Your task to perform on an android device: Open the calendar and show me this week's events Image 0: 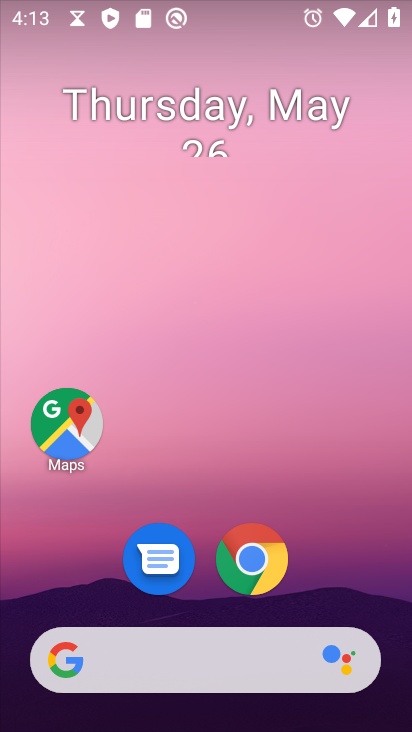
Step 0: drag from (359, 541) to (260, 35)
Your task to perform on an android device: Open the calendar and show me this week's events Image 1: 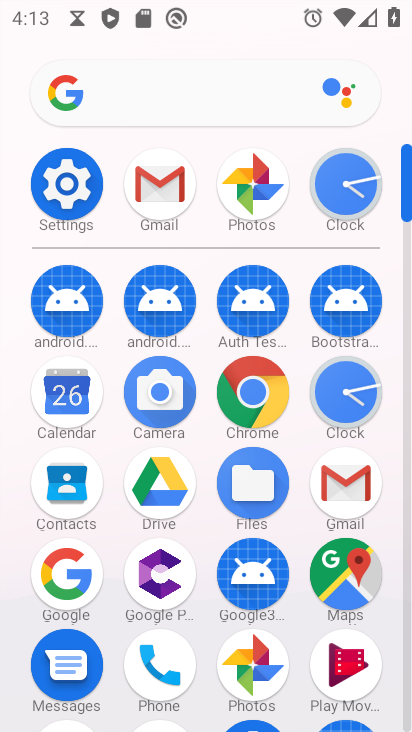
Step 1: click (69, 403)
Your task to perform on an android device: Open the calendar and show me this week's events Image 2: 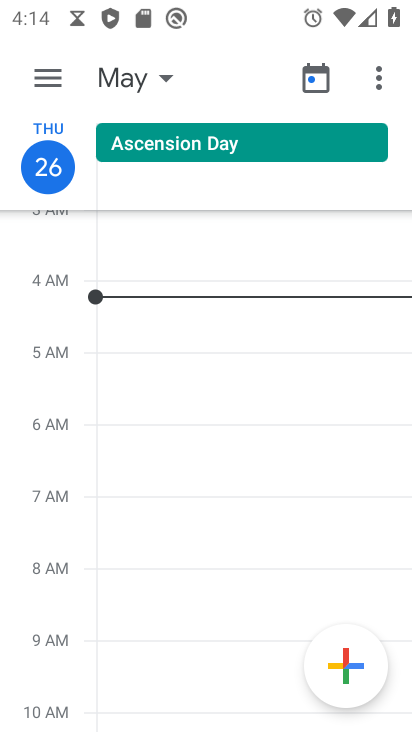
Step 2: click (45, 76)
Your task to perform on an android device: Open the calendar and show me this week's events Image 3: 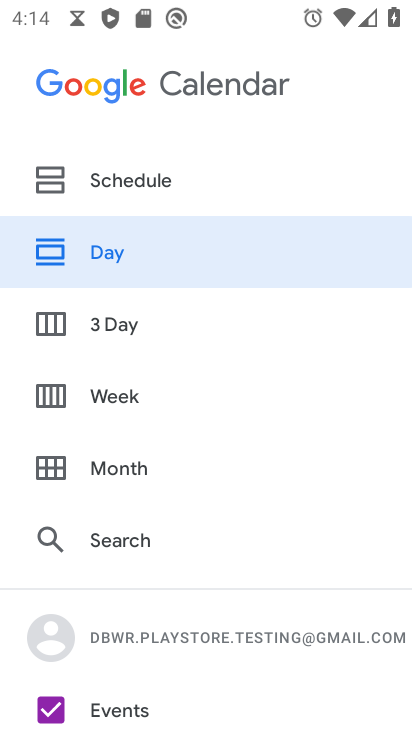
Step 3: click (95, 384)
Your task to perform on an android device: Open the calendar and show me this week's events Image 4: 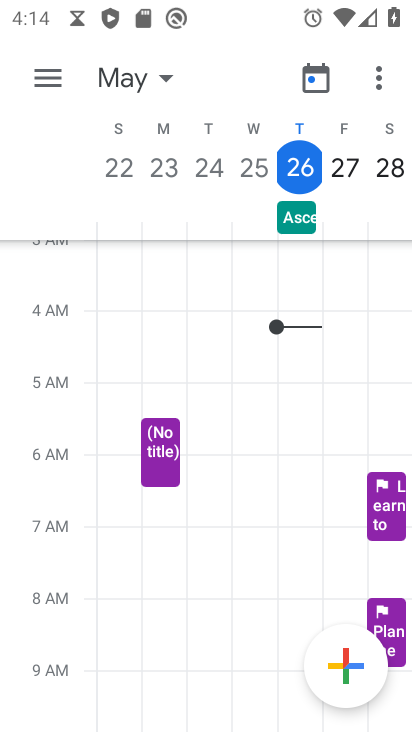
Step 4: click (159, 80)
Your task to perform on an android device: Open the calendar and show me this week's events Image 5: 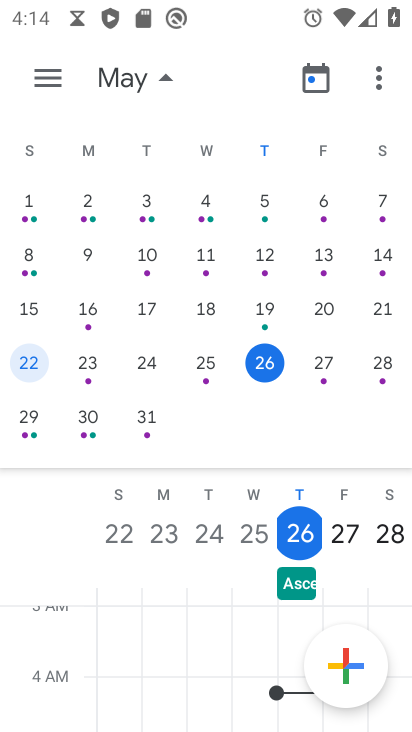
Step 5: task complete